Your task to perform on an android device: manage bookmarks in the chrome app Image 0: 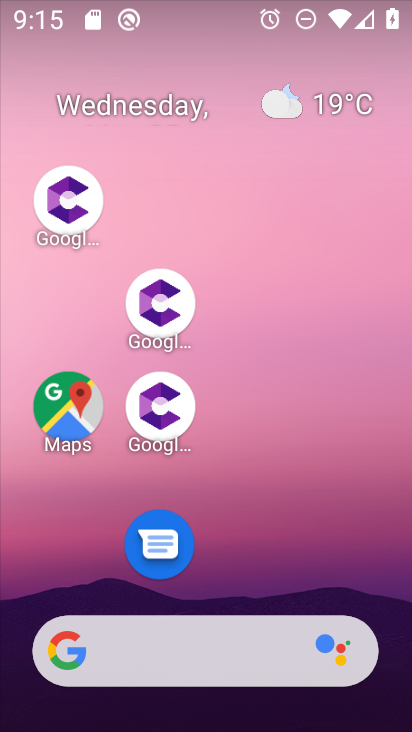
Step 0: drag from (301, 541) to (239, 134)
Your task to perform on an android device: manage bookmarks in the chrome app Image 1: 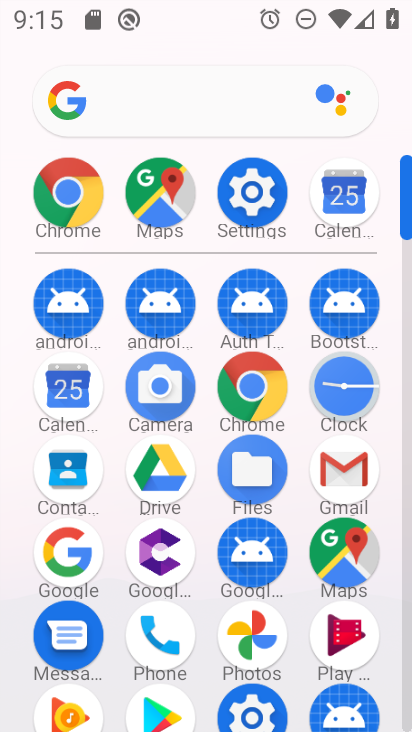
Step 1: click (239, 390)
Your task to perform on an android device: manage bookmarks in the chrome app Image 2: 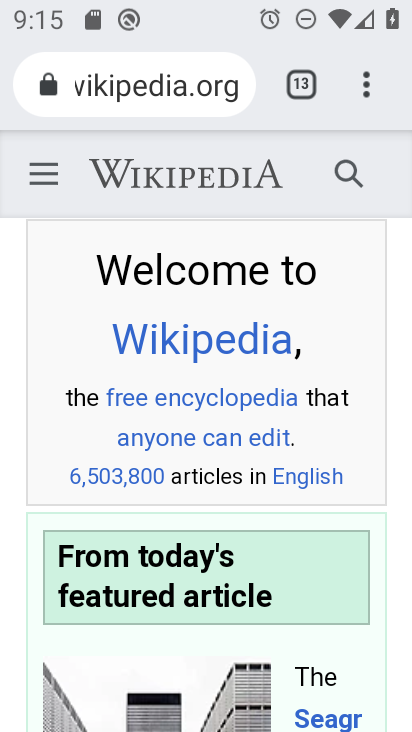
Step 2: click (362, 84)
Your task to perform on an android device: manage bookmarks in the chrome app Image 3: 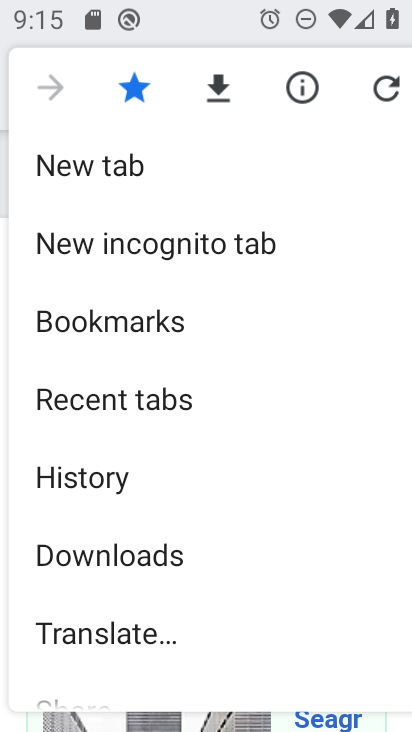
Step 3: click (140, 324)
Your task to perform on an android device: manage bookmarks in the chrome app Image 4: 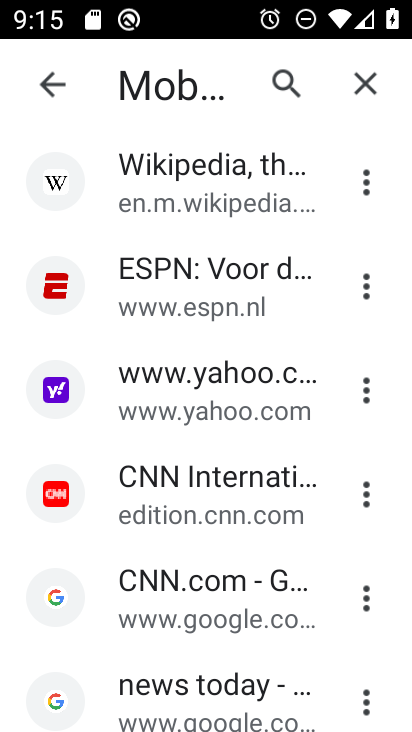
Step 4: click (363, 181)
Your task to perform on an android device: manage bookmarks in the chrome app Image 5: 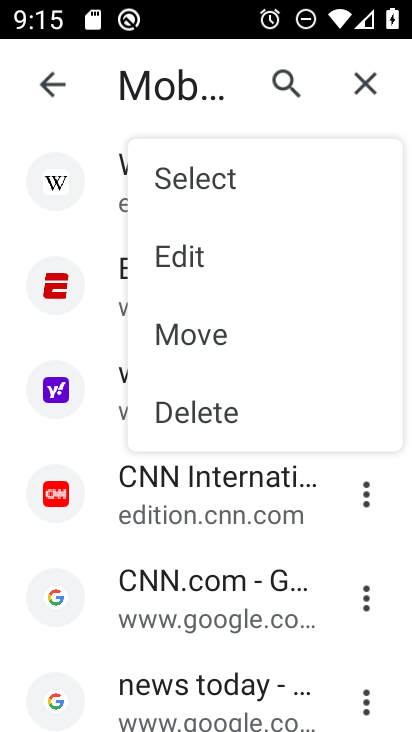
Step 5: click (179, 252)
Your task to perform on an android device: manage bookmarks in the chrome app Image 6: 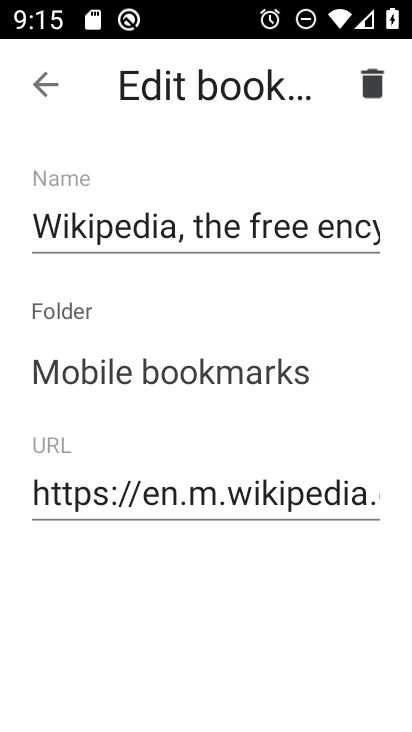
Step 6: task complete